Your task to perform on an android device: Open the phone app and click the voicemail tab. Image 0: 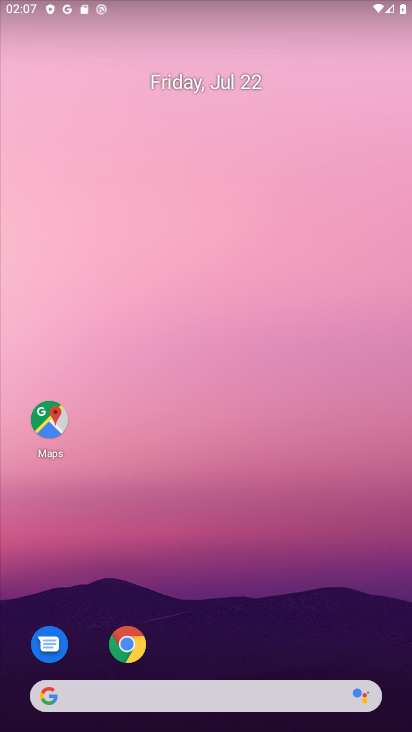
Step 0: drag from (327, 724) to (341, 221)
Your task to perform on an android device: Open the phone app and click the voicemail tab. Image 1: 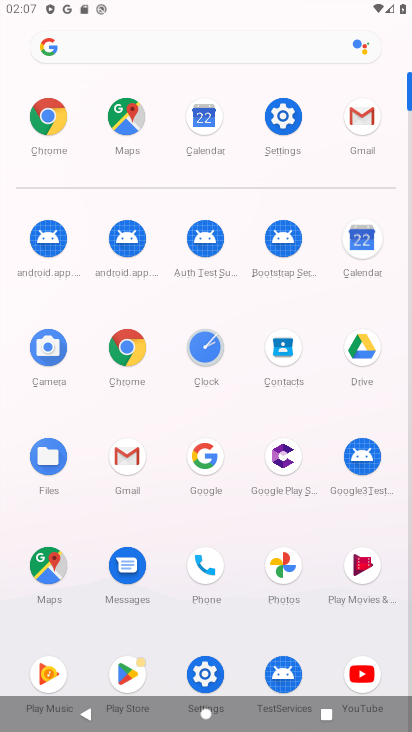
Step 1: click (212, 558)
Your task to perform on an android device: Open the phone app and click the voicemail tab. Image 2: 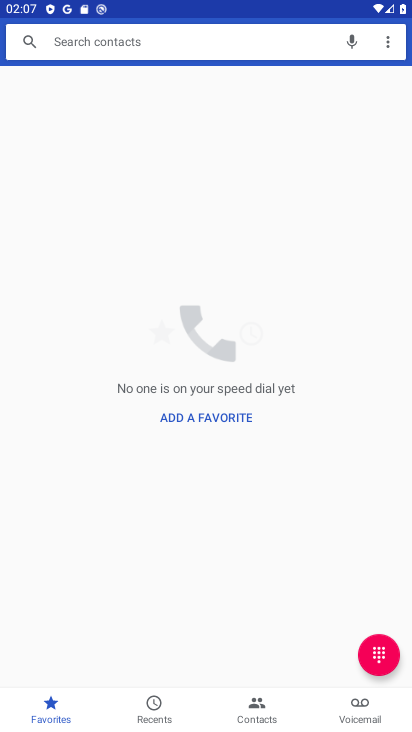
Step 2: click (348, 713)
Your task to perform on an android device: Open the phone app and click the voicemail tab. Image 3: 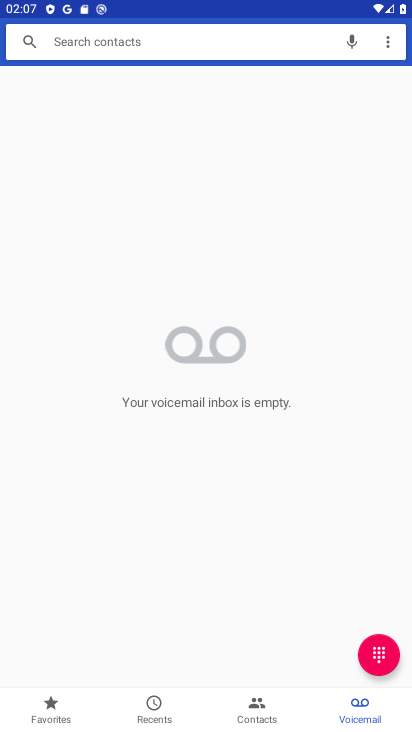
Step 3: task complete